Your task to perform on an android device: When is my next appointment? Image 0: 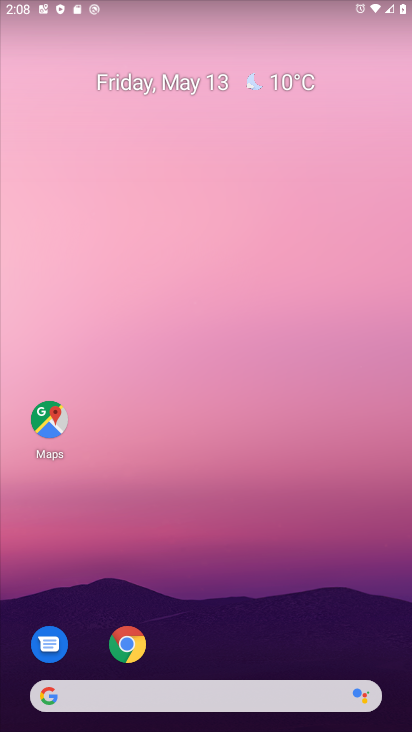
Step 0: drag from (189, 725) to (181, 129)
Your task to perform on an android device: When is my next appointment? Image 1: 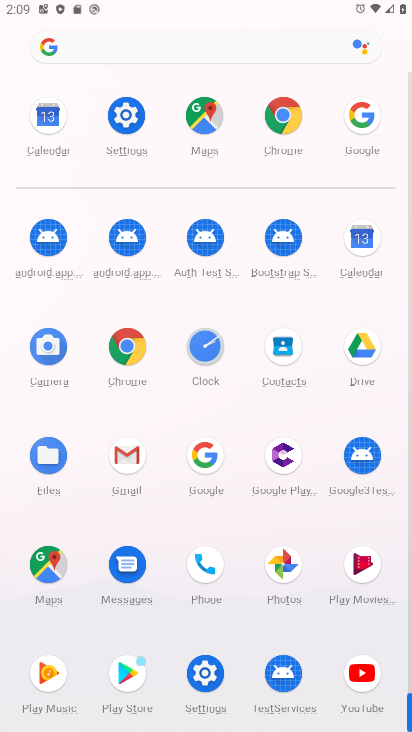
Step 1: click (358, 245)
Your task to perform on an android device: When is my next appointment? Image 2: 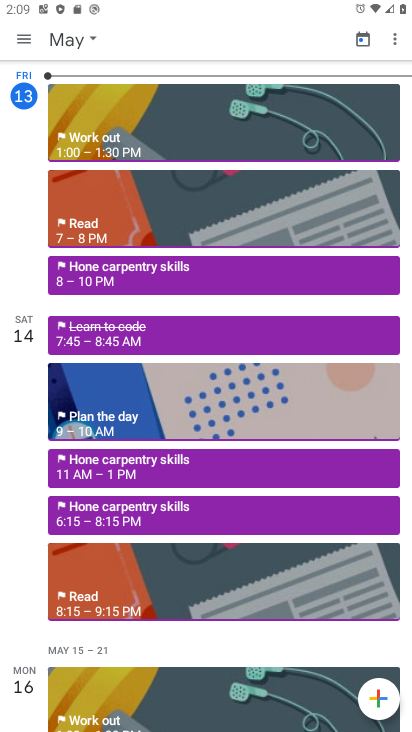
Step 2: click (65, 44)
Your task to perform on an android device: When is my next appointment? Image 3: 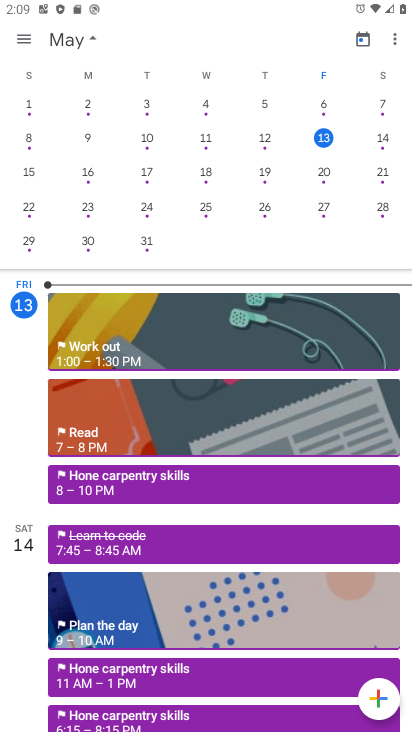
Step 3: click (378, 133)
Your task to perform on an android device: When is my next appointment? Image 4: 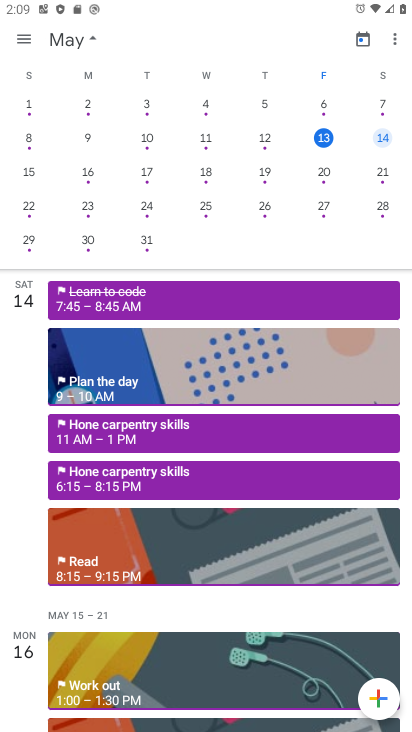
Step 4: task complete